Your task to perform on an android device: read, delete, or share a saved page in the chrome app Image 0: 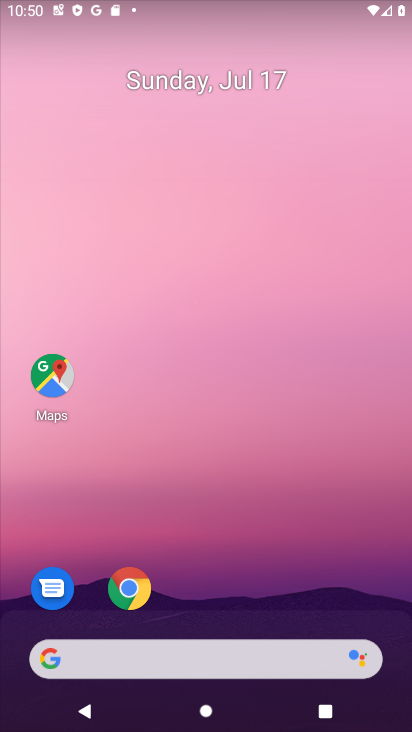
Step 0: click (130, 584)
Your task to perform on an android device: read, delete, or share a saved page in the chrome app Image 1: 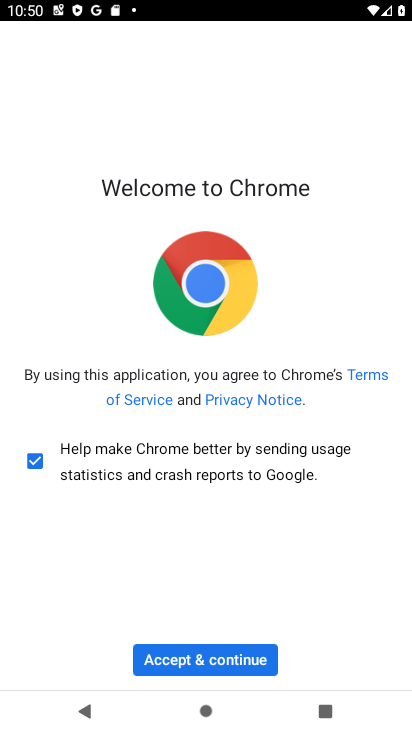
Step 1: click (198, 659)
Your task to perform on an android device: read, delete, or share a saved page in the chrome app Image 2: 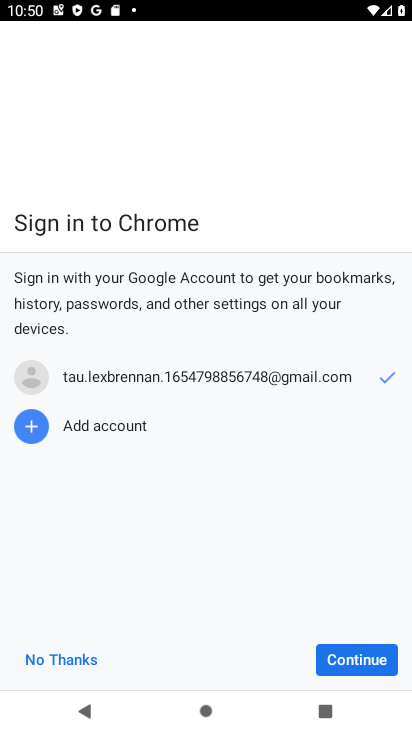
Step 2: click (354, 654)
Your task to perform on an android device: read, delete, or share a saved page in the chrome app Image 3: 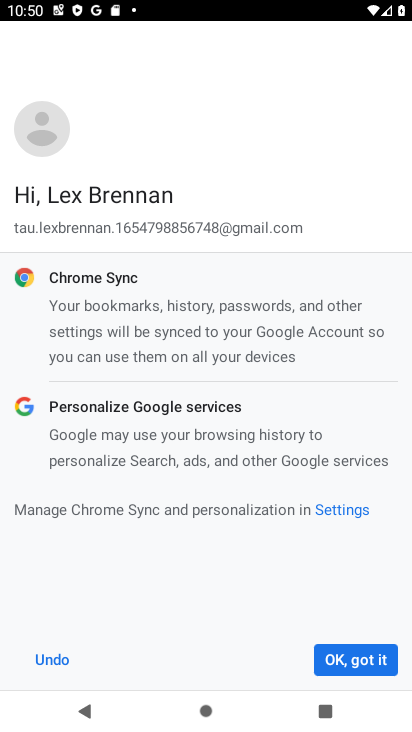
Step 3: click (350, 657)
Your task to perform on an android device: read, delete, or share a saved page in the chrome app Image 4: 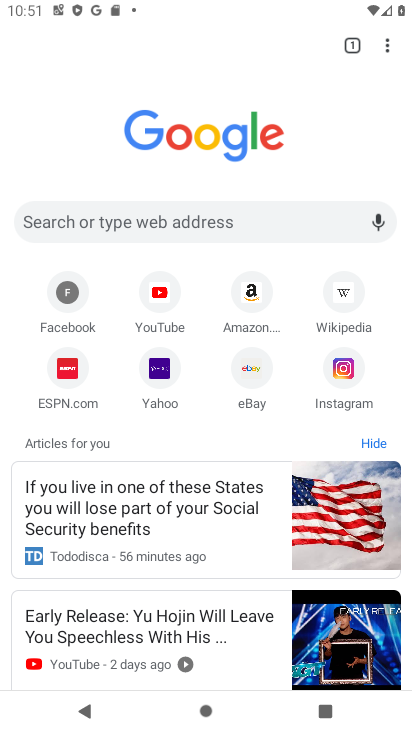
Step 4: click (388, 39)
Your task to perform on an android device: read, delete, or share a saved page in the chrome app Image 5: 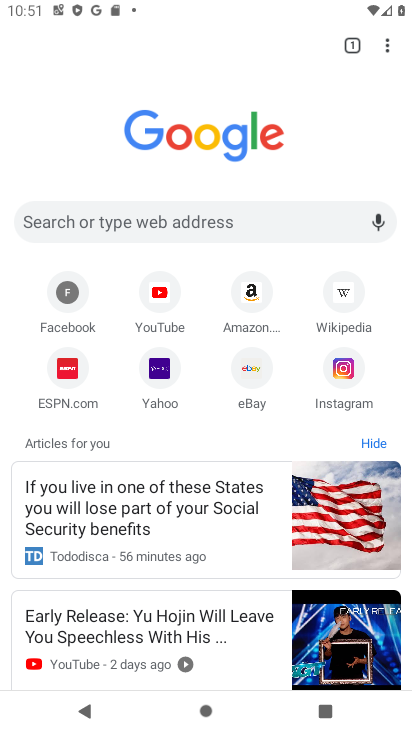
Step 5: click (386, 47)
Your task to perform on an android device: read, delete, or share a saved page in the chrome app Image 6: 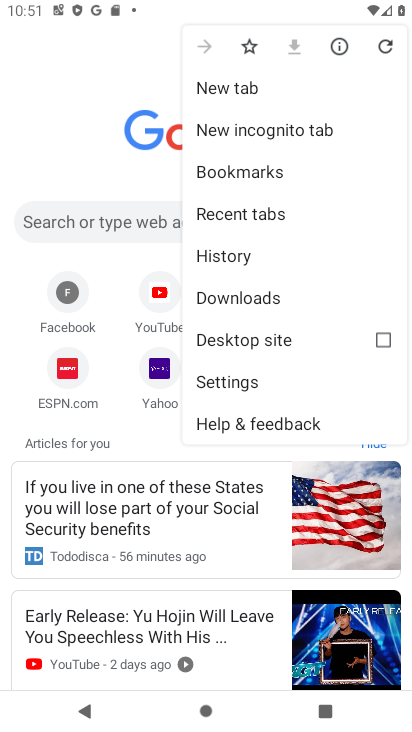
Step 6: click (284, 288)
Your task to perform on an android device: read, delete, or share a saved page in the chrome app Image 7: 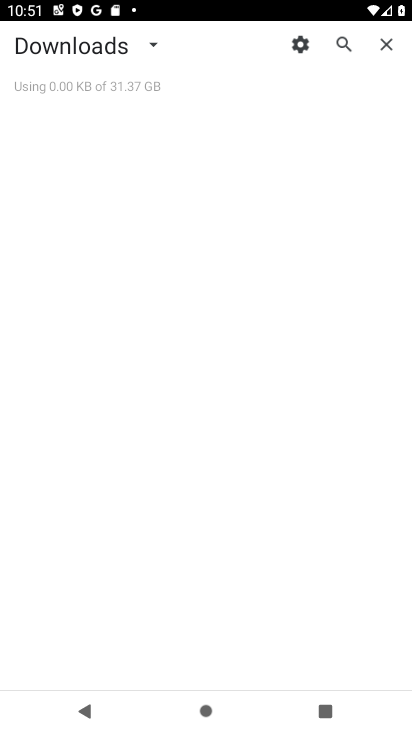
Step 7: task complete